Your task to perform on an android device: Open Chrome and go to the settings page Image 0: 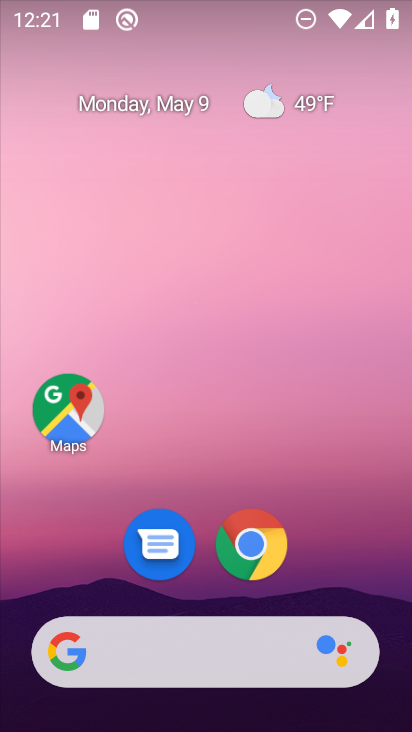
Step 0: drag from (372, 450) to (349, 4)
Your task to perform on an android device: Open Chrome and go to the settings page Image 1: 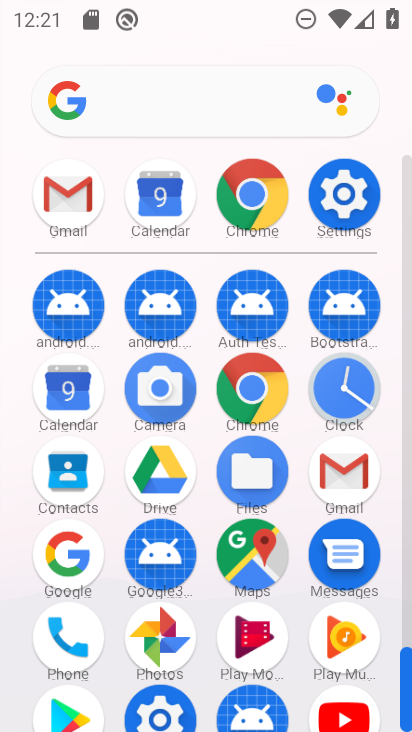
Step 1: click (266, 196)
Your task to perform on an android device: Open Chrome and go to the settings page Image 2: 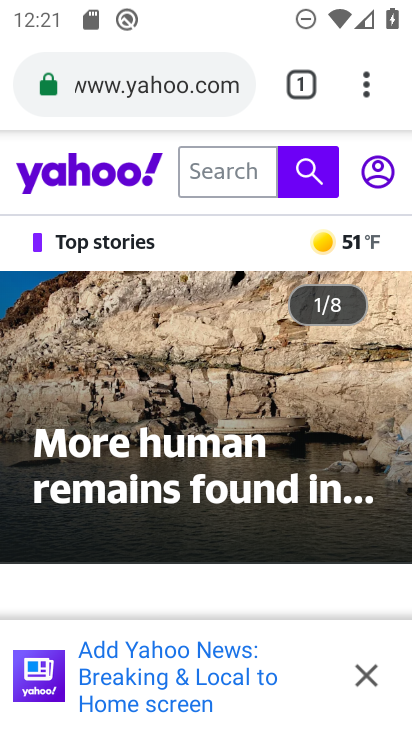
Step 2: task complete